Your task to perform on an android device: empty trash in the gmail app Image 0: 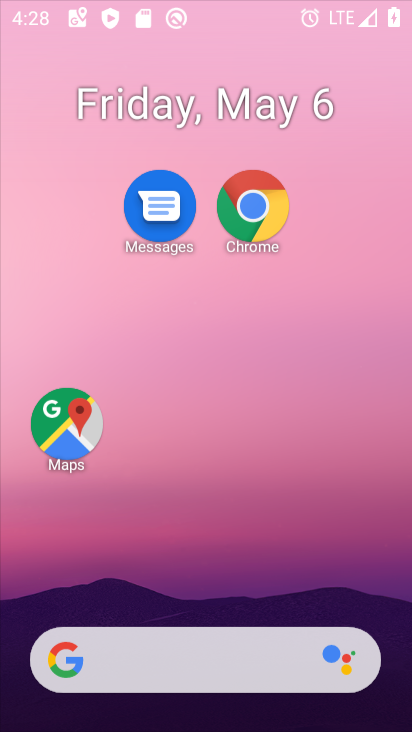
Step 0: drag from (219, 411) to (219, 350)
Your task to perform on an android device: empty trash in the gmail app Image 1: 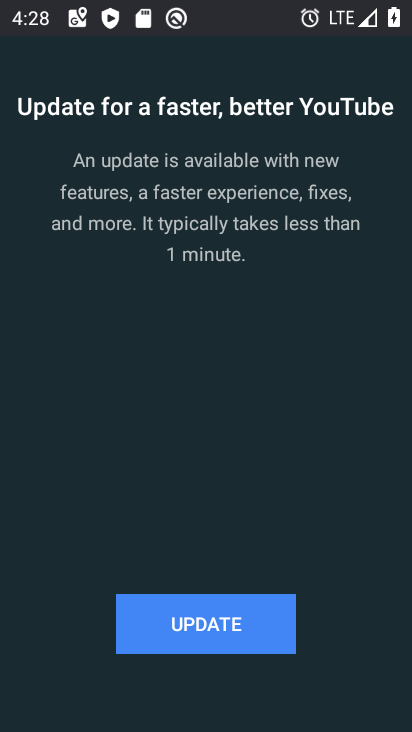
Step 1: press home button
Your task to perform on an android device: empty trash in the gmail app Image 2: 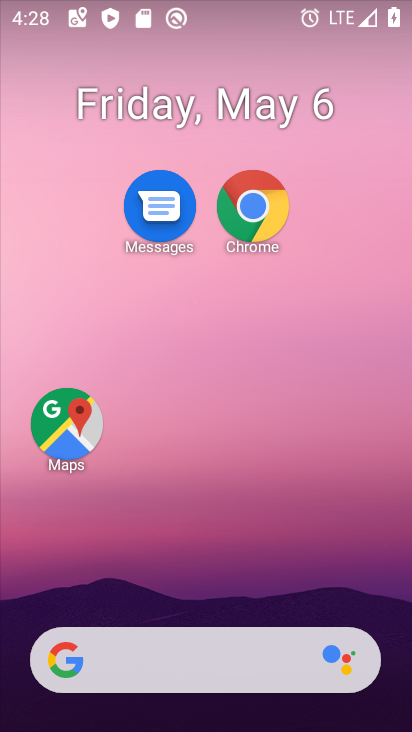
Step 2: drag from (186, 621) to (187, 307)
Your task to perform on an android device: empty trash in the gmail app Image 3: 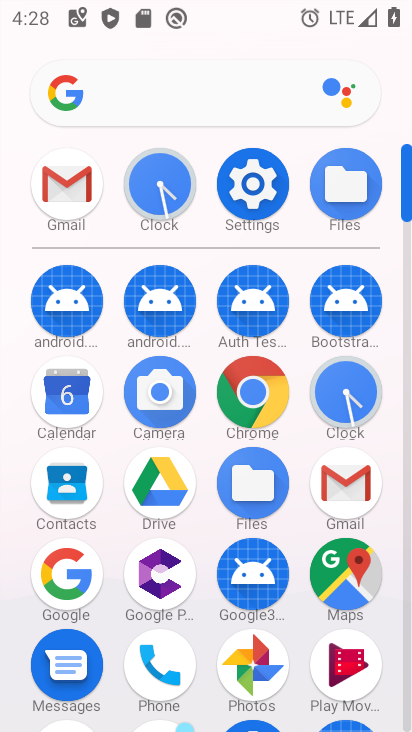
Step 3: click (76, 199)
Your task to perform on an android device: empty trash in the gmail app Image 4: 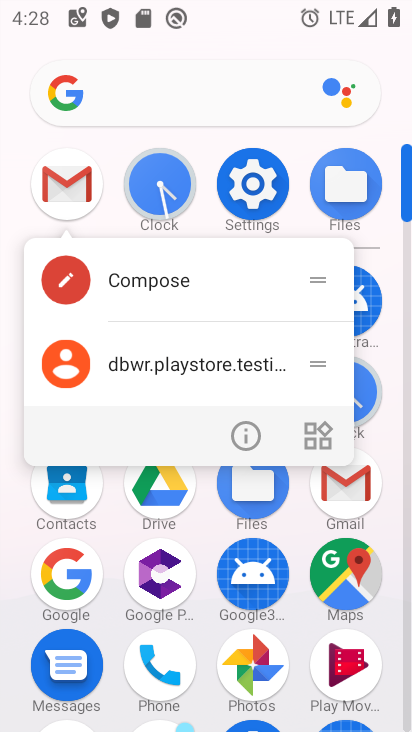
Step 4: click (67, 198)
Your task to perform on an android device: empty trash in the gmail app Image 5: 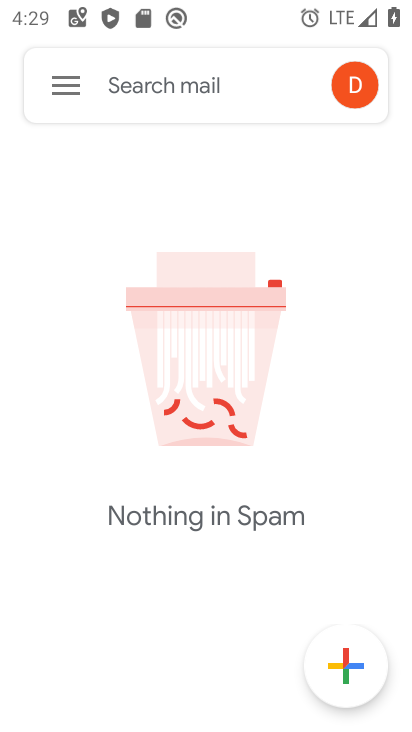
Step 5: click (74, 83)
Your task to perform on an android device: empty trash in the gmail app Image 6: 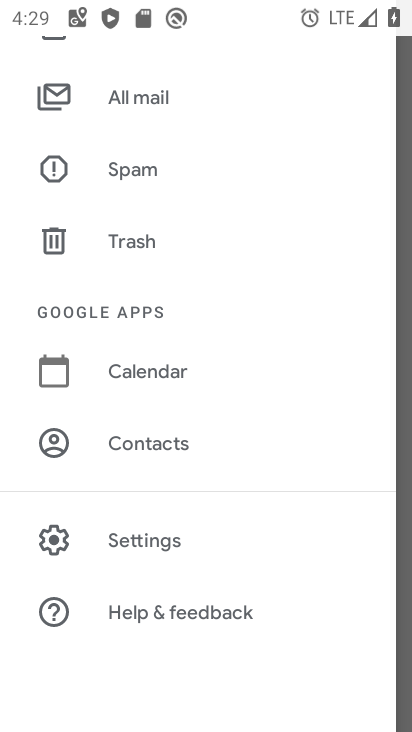
Step 6: click (127, 250)
Your task to perform on an android device: empty trash in the gmail app Image 7: 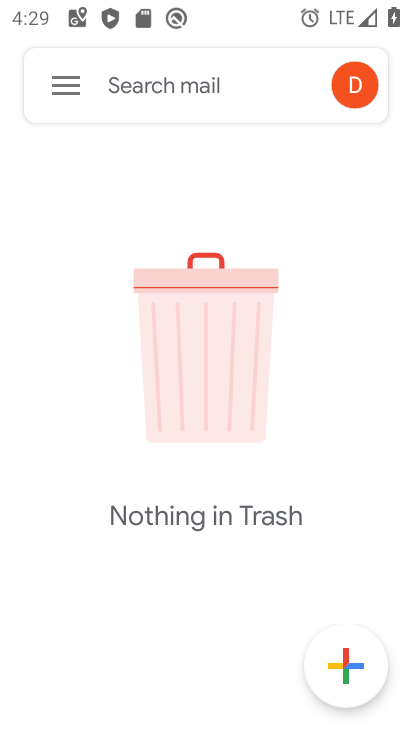
Step 7: task complete